Your task to perform on an android device: change the upload size in google photos Image 0: 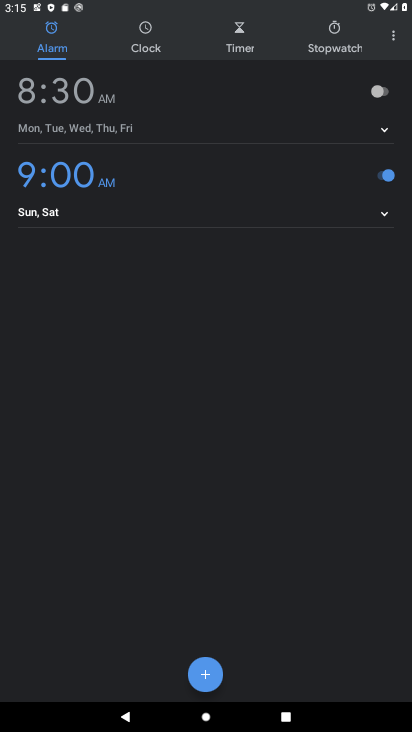
Step 0: press home button
Your task to perform on an android device: change the upload size in google photos Image 1: 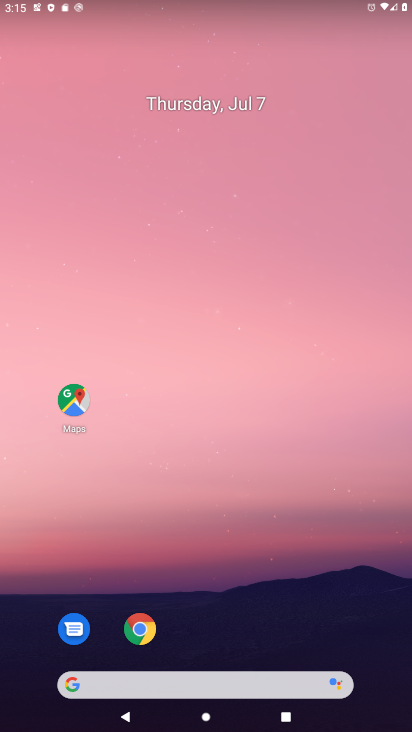
Step 1: drag from (218, 618) to (220, 124)
Your task to perform on an android device: change the upload size in google photos Image 2: 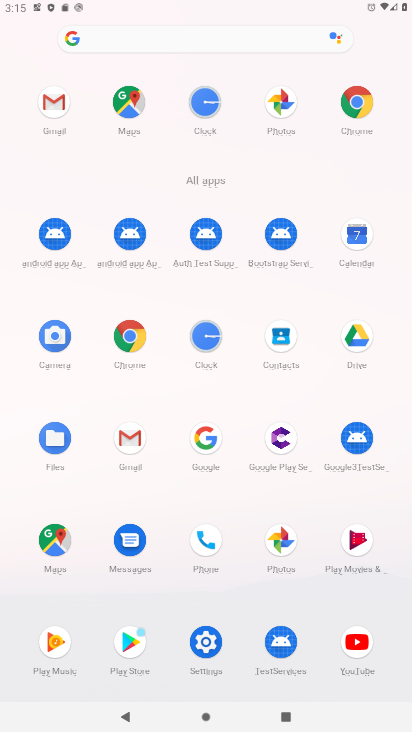
Step 2: click (275, 94)
Your task to perform on an android device: change the upload size in google photos Image 3: 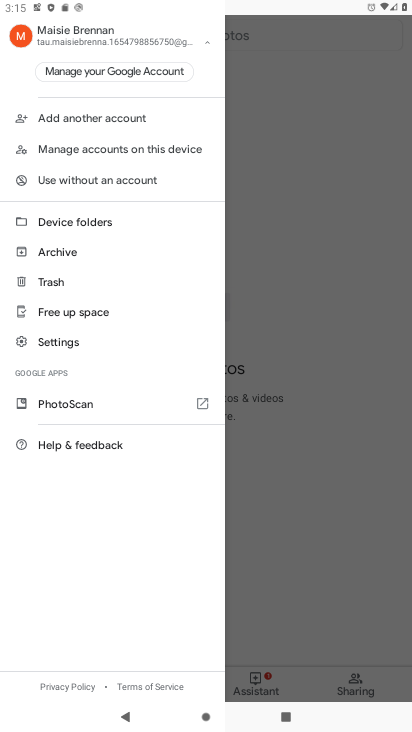
Step 3: press home button
Your task to perform on an android device: change the upload size in google photos Image 4: 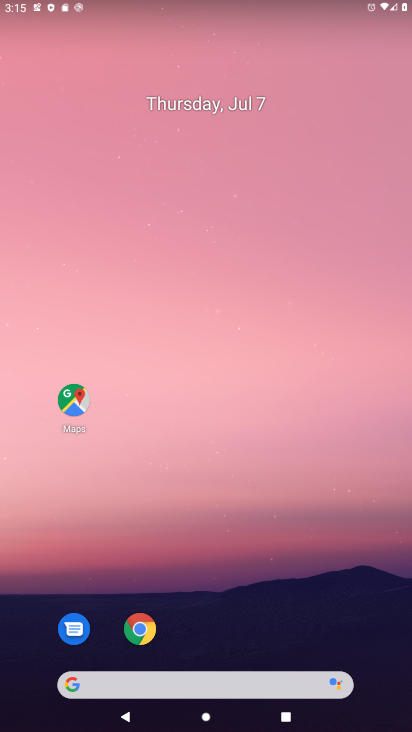
Step 4: drag from (222, 649) to (189, 81)
Your task to perform on an android device: change the upload size in google photos Image 5: 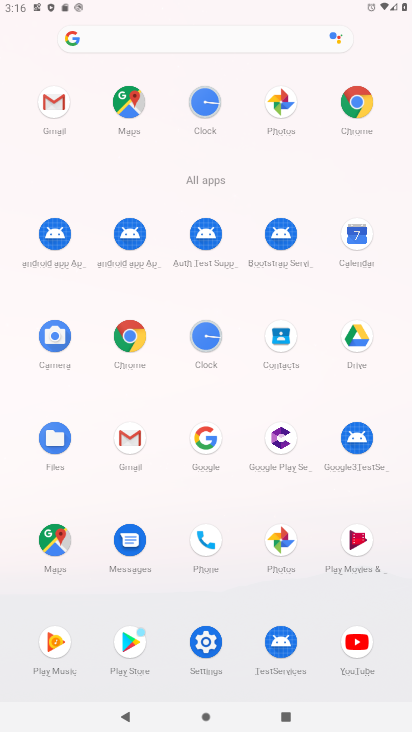
Step 5: click (275, 105)
Your task to perform on an android device: change the upload size in google photos Image 6: 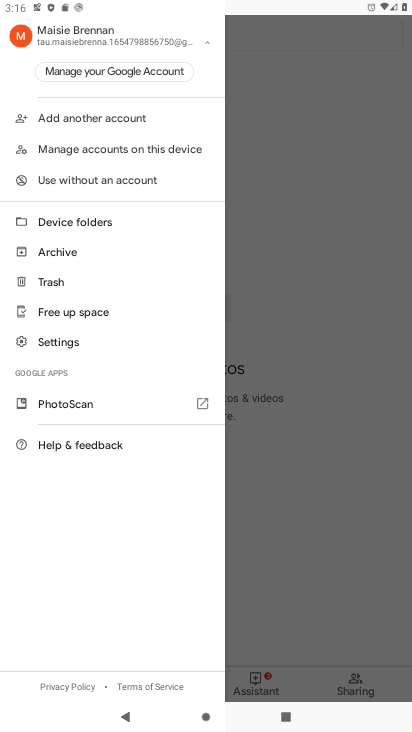
Step 6: click (67, 345)
Your task to perform on an android device: change the upload size in google photos Image 7: 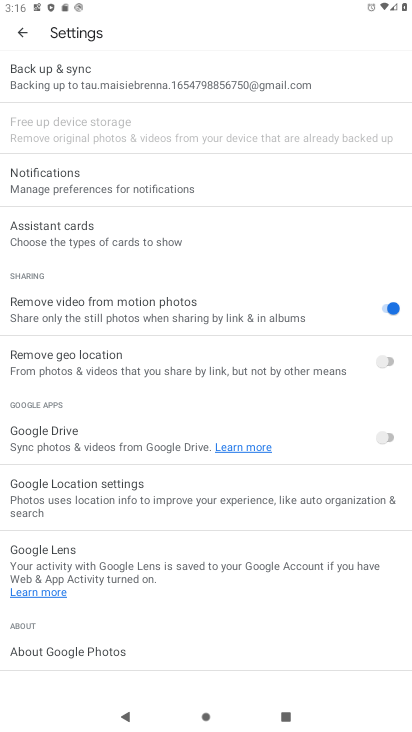
Step 7: click (170, 67)
Your task to perform on an android device: change the upload size in google photos Image 8: 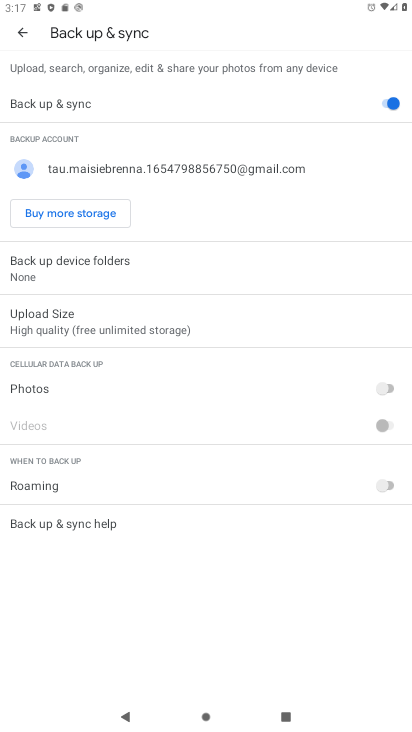
Step 8: click (122, 321)
Your task to perform on an android device: change the upload size in google photos Image 9: 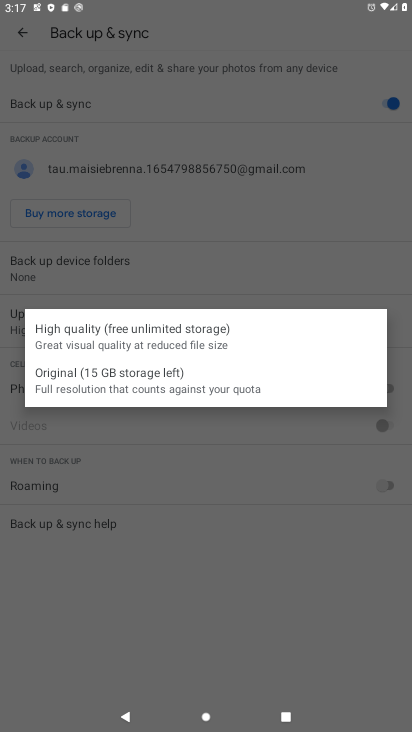
Step 9: click (166, 381)
Your task to perform on an android device: change the upload size in google photos Image 10: 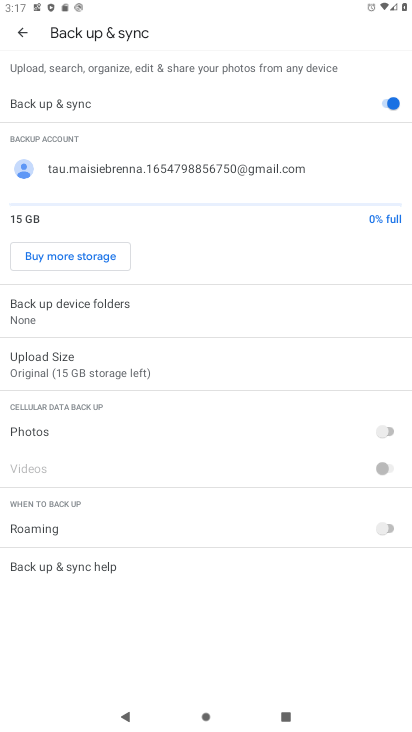
Step 10: task complete